Your task to perform on an android device: Open location settings Image 0: 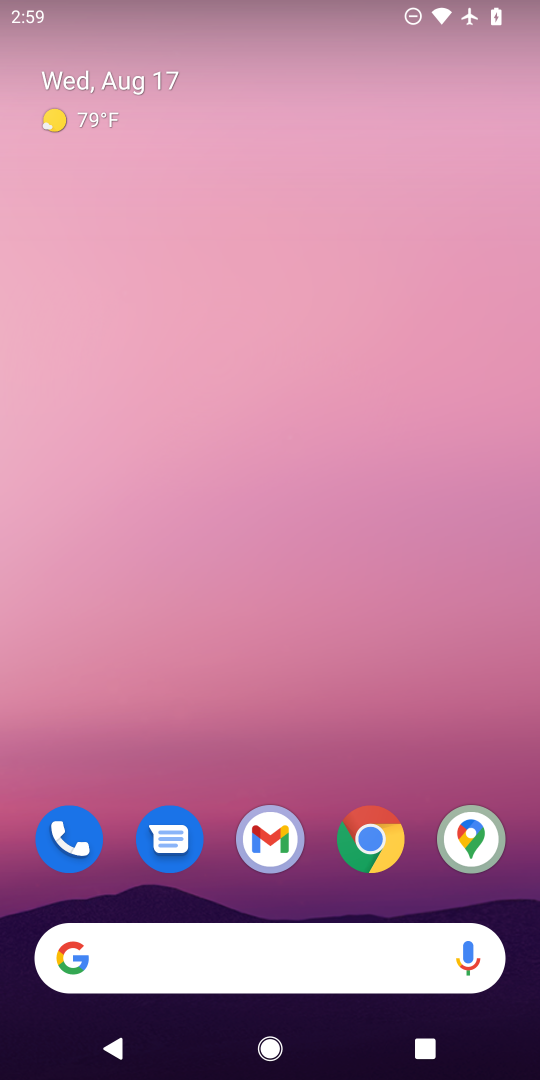
Step 0: drag from (295, 808) to (182, 4)
Your task to perform on an android device: Open location settings Image 1: 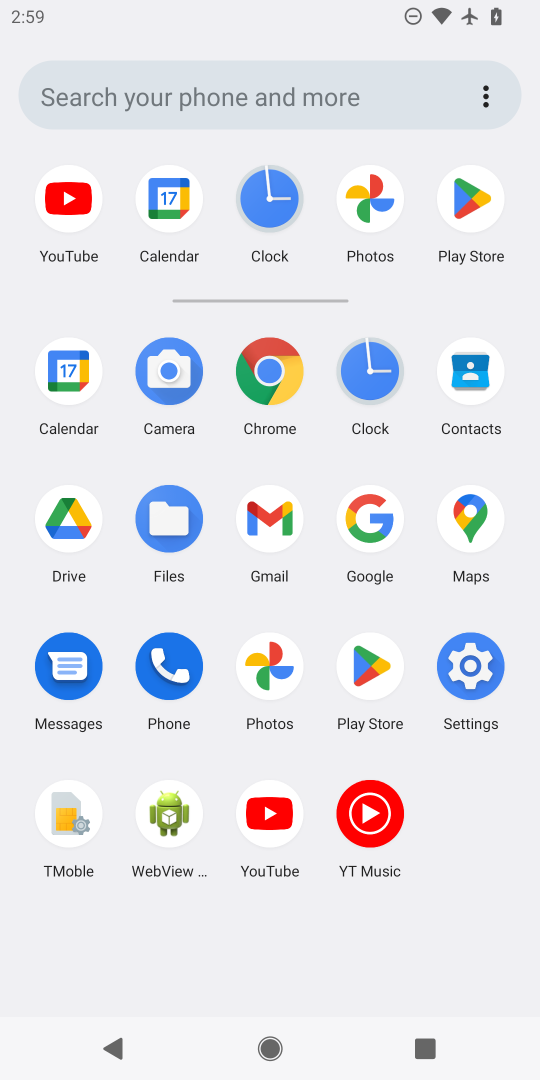
Step 1: click (460, 672)
Your task to perform on an android device: Open location settings Image 2: 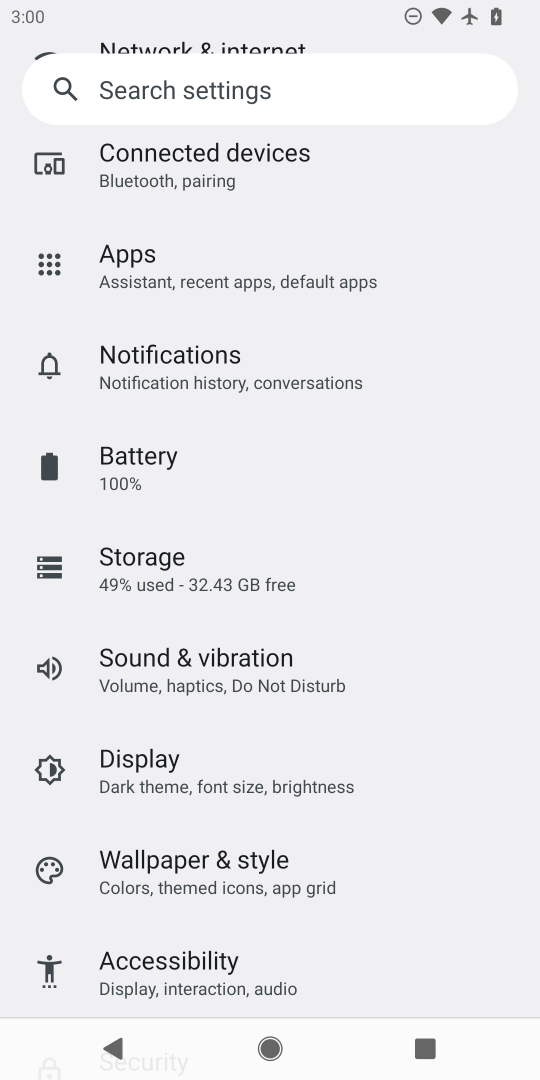
Step 2: drag from (180, 314) to (157, 865)
Your task to perform on an android device: Open location settings Image 3: 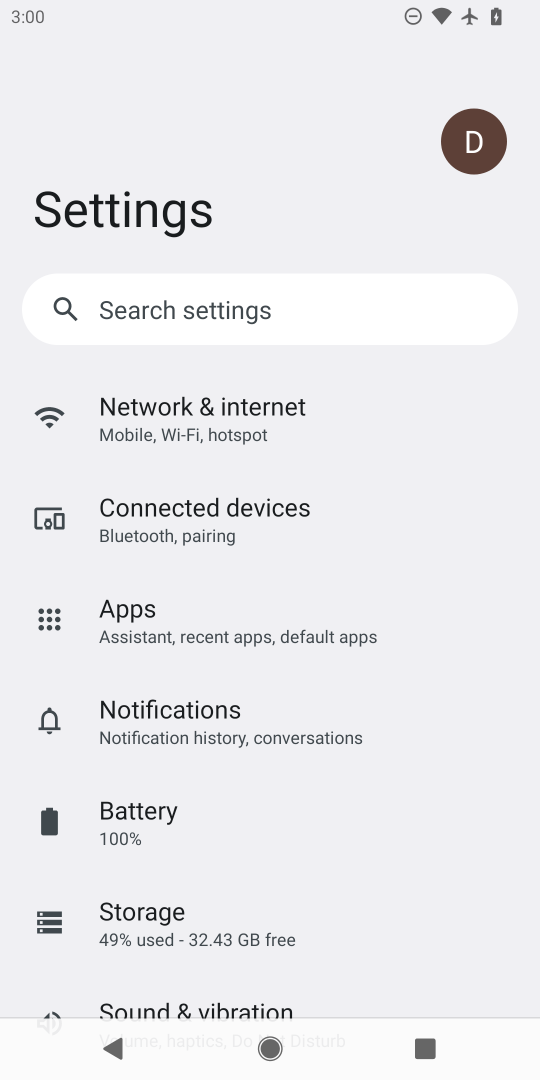
Step 3: drag from (231, 956) to (223, 446)
Your task to perform on an android device: Open location settings Image 4: 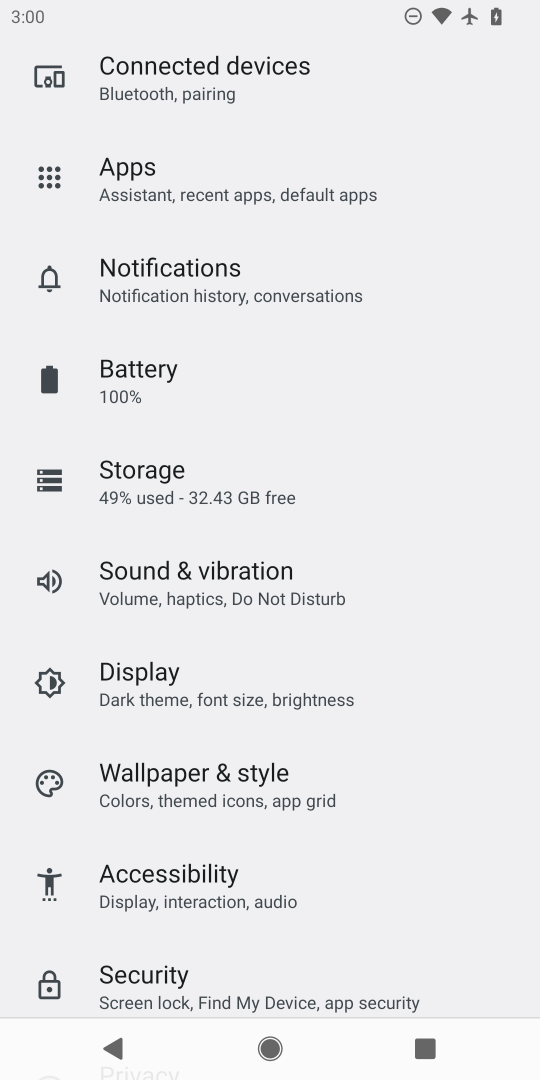
Step 4: drag from (180, 927) to (179, 422)
Your task to perform on an android device: Open location settings Image 5: 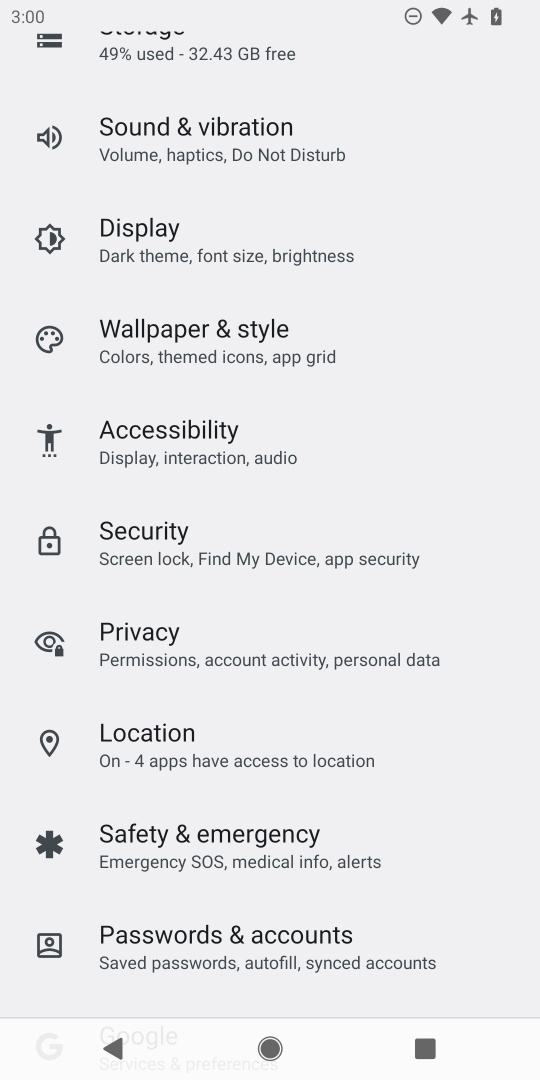
Step 5: click (141, 741)
Your task to perform on an android device: Open location settings Image 6: 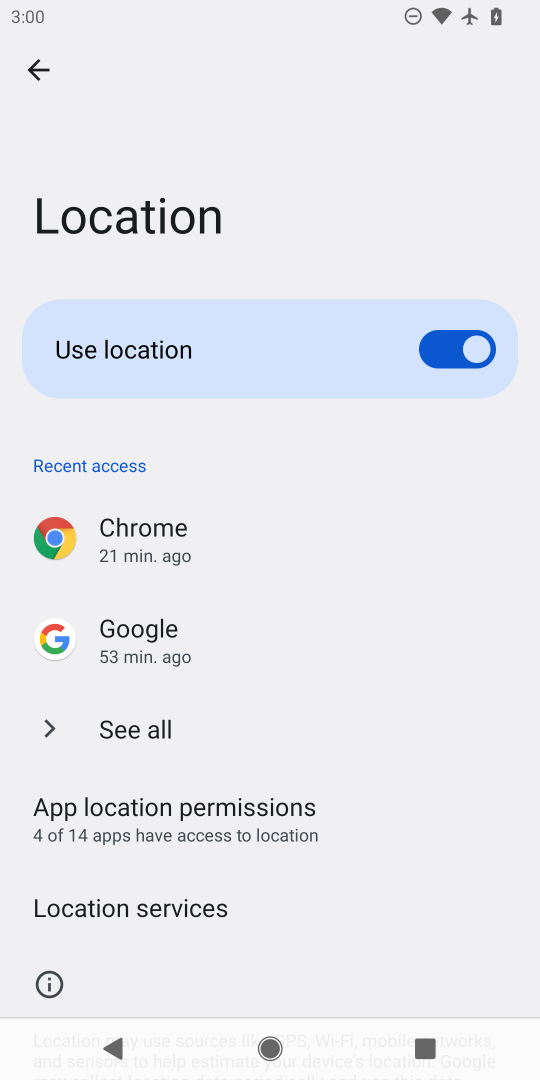
Step 6: task complete